Your task to perform on an android device: Search for the new Jordans on Nike.com Image 0: 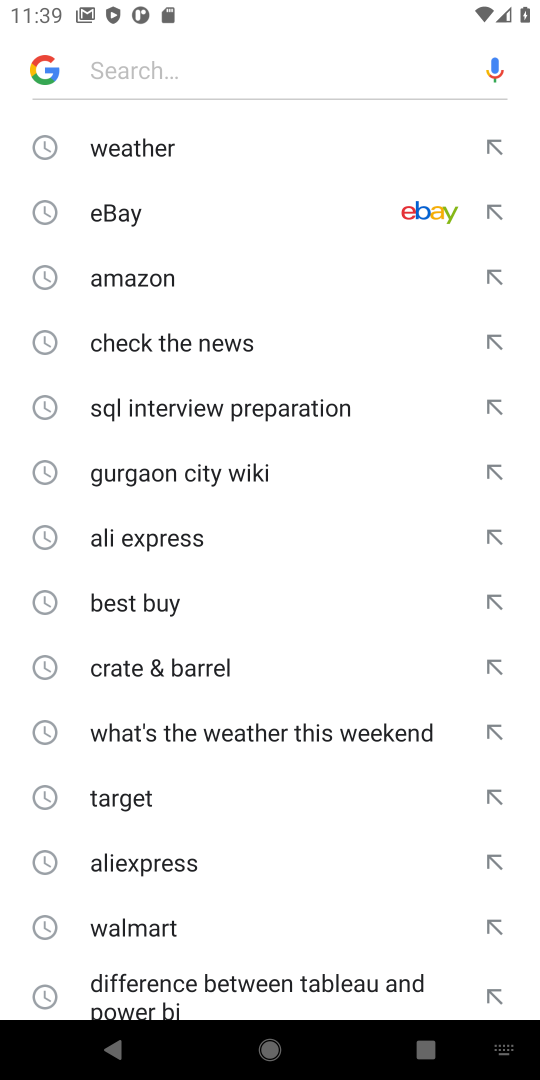
Step 0: press home button
Your task to perform on an android device: Search for the new Jordans on Nike.com Image 1: 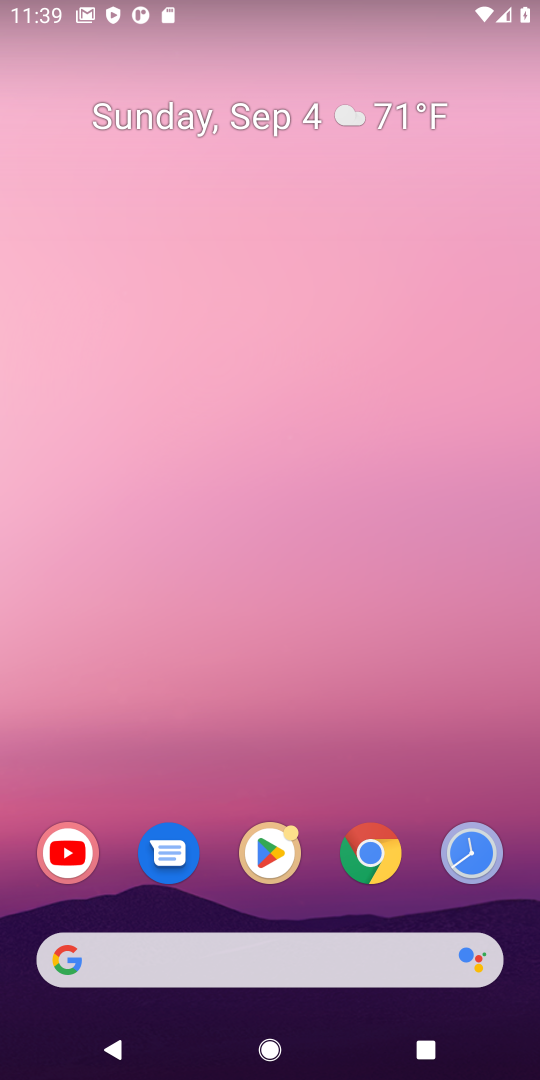
Step 1: click (367, 851)
Your task to perform on an android device: Search for the new Jordans on Nike.com Image 2: 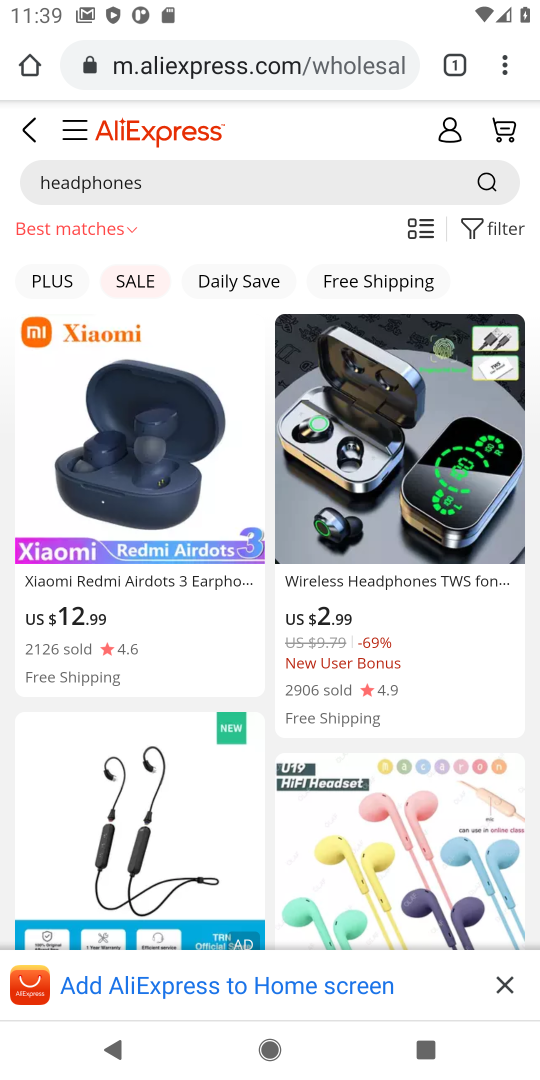
Step 2: click (338, 64)
Your task to perform on an android device: Search for the new Jordans on Nike.com Image 3: 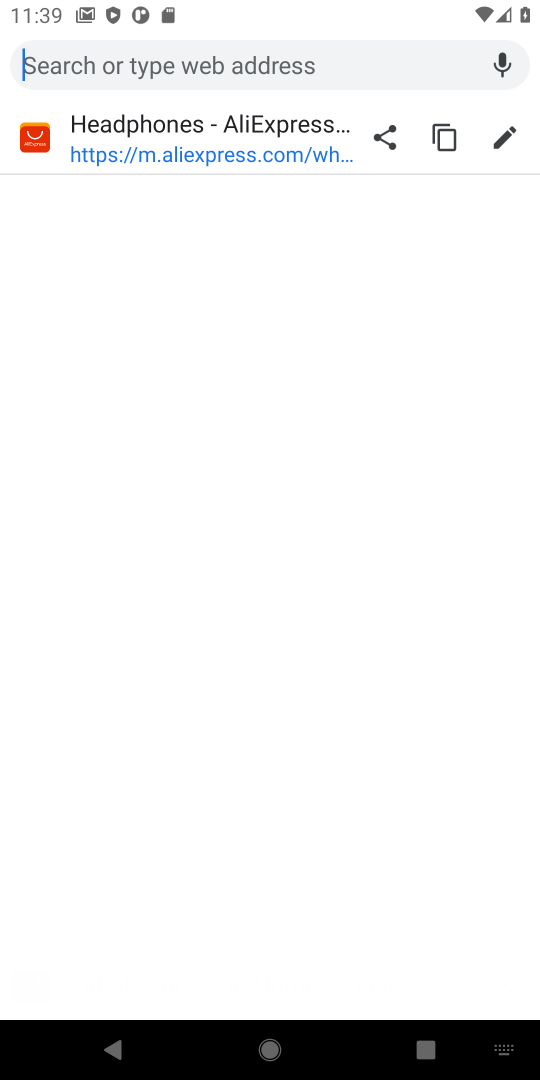
Step 3: type " Nike.com"
Your task to perform on an android device: Search for the new Jordans on Nike.com Image 4: 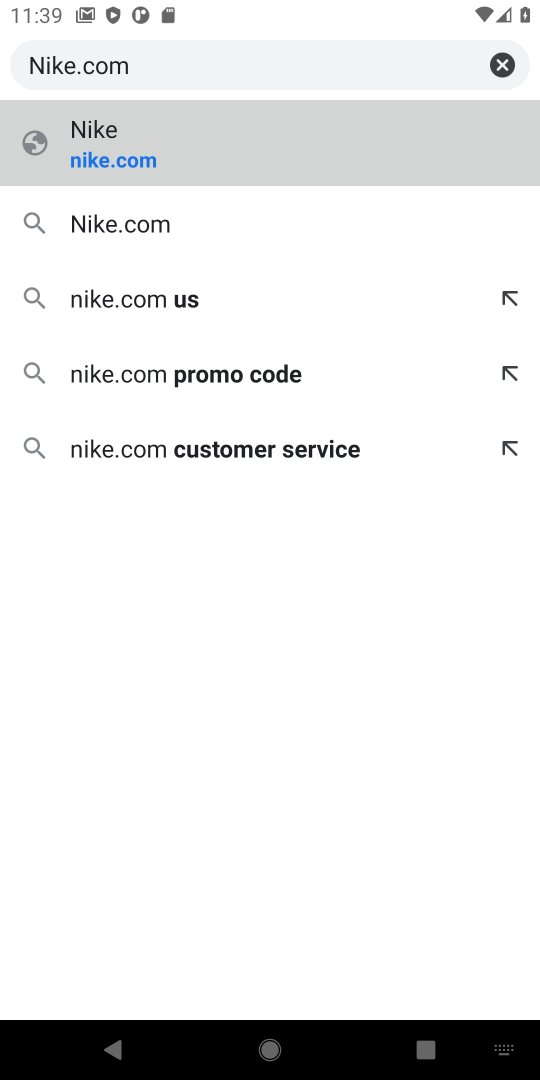
Step 4: press enter
Your task to perform on an android device: Search for the new Jordans on Nike.com Image 5: 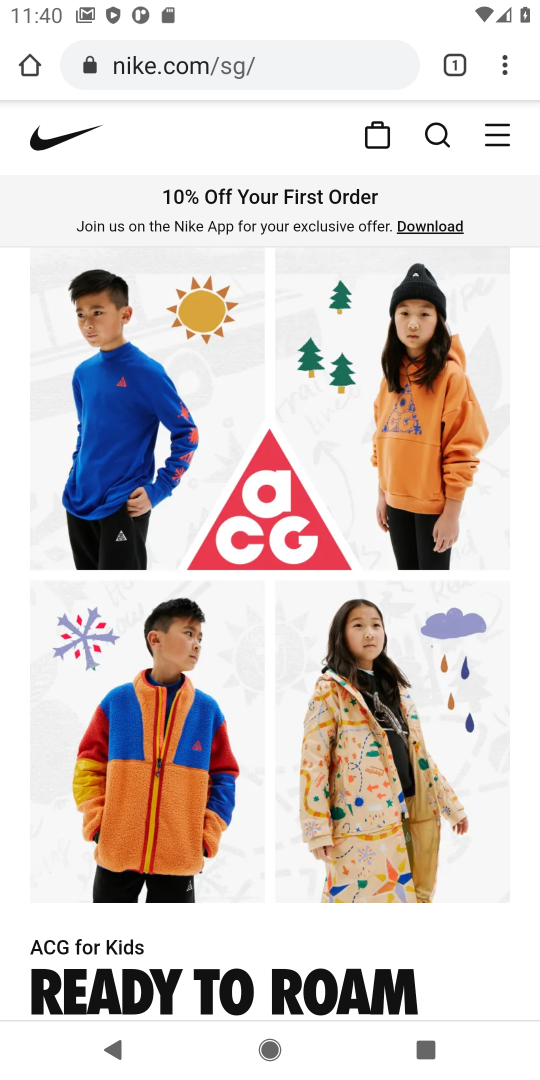
Step 5: click (420, 121)
Your task to perform on an android device: Search for the new Jordans on Nike.com Image 6: 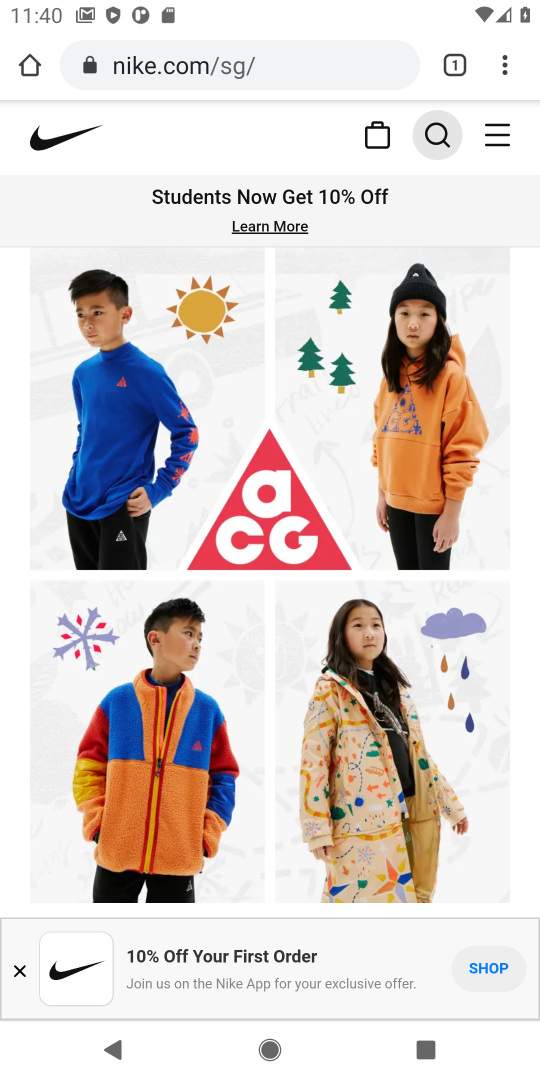
Step 6: click (409, 127)
Your task to perform on an android device: Search for the new Jordans on Nike.com Image 7: 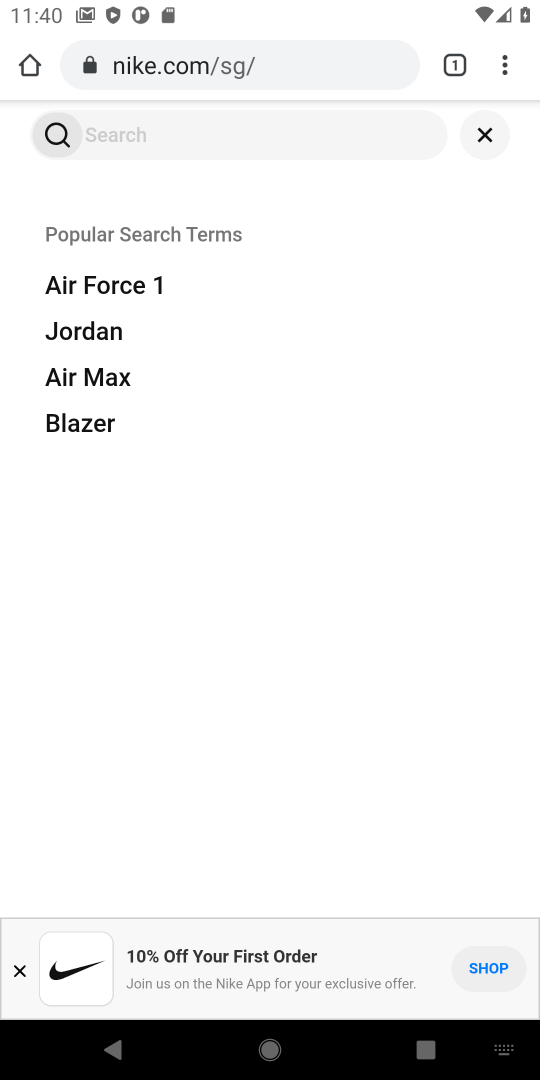
Step 7: click (147, 127)
Your task to perform on an android device: Search for the new Jordans on Nike.com Image 8: 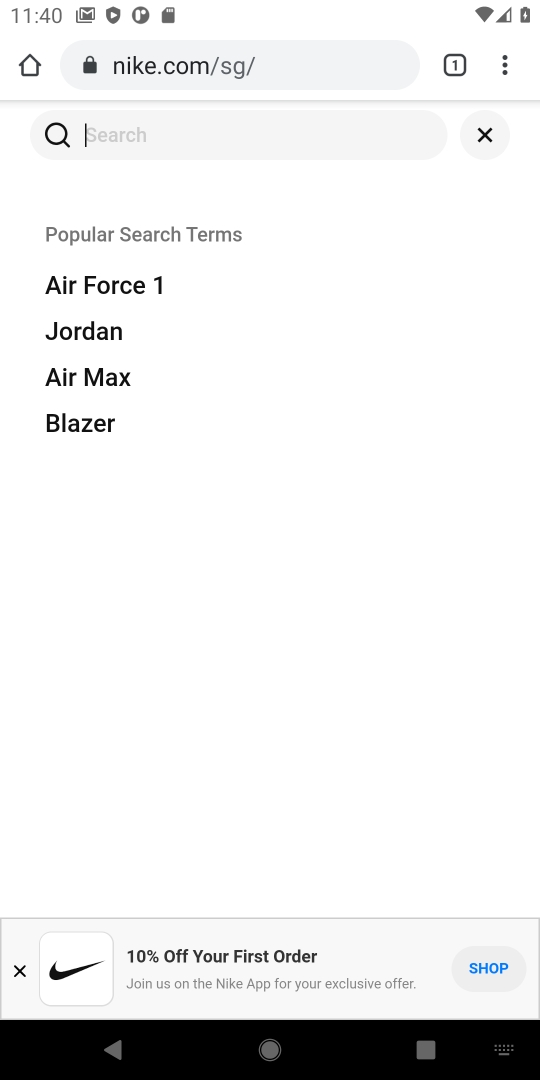
Step 8: type " new Jordans"
Your task to perform on an android device: Search for the new Jordans on Nike.com Image 9: 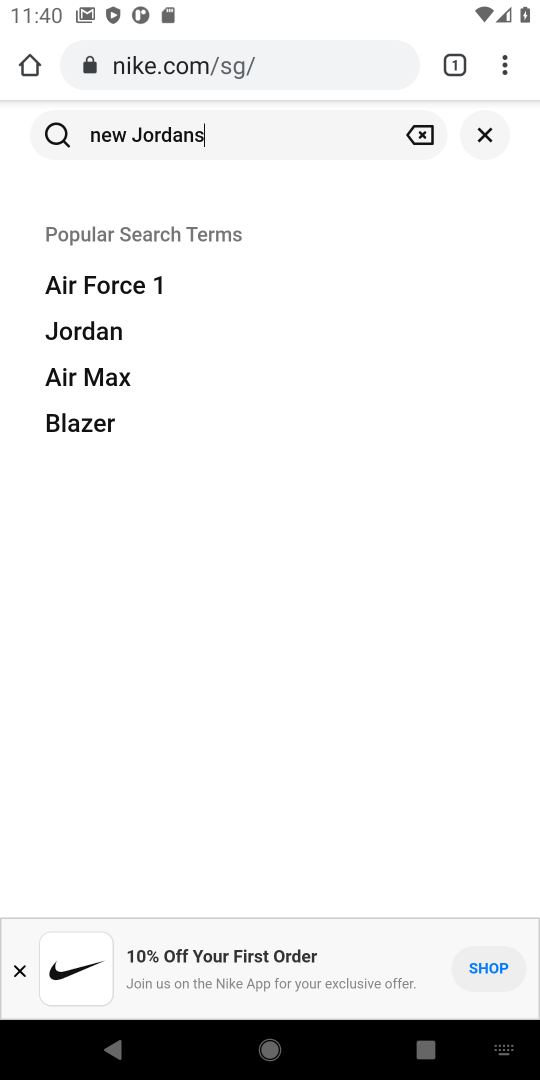
Step 9: press enter
Your task to perform on an android device: Search for the new Jordans on Nike.com Image 10: 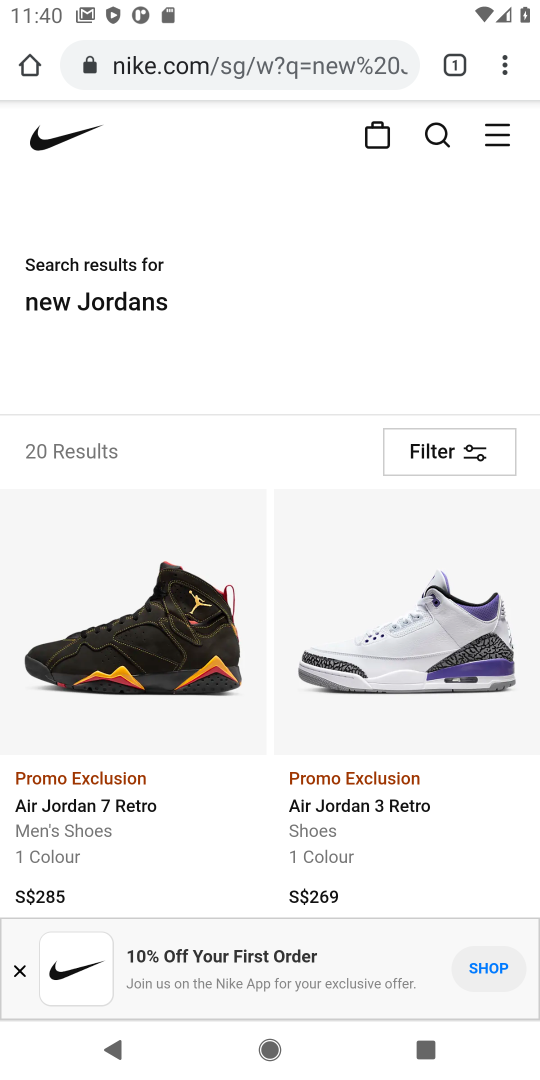
Step 10: task complete